Your task to perform on an android device: turn on the 12-hour format for clock Image 0: 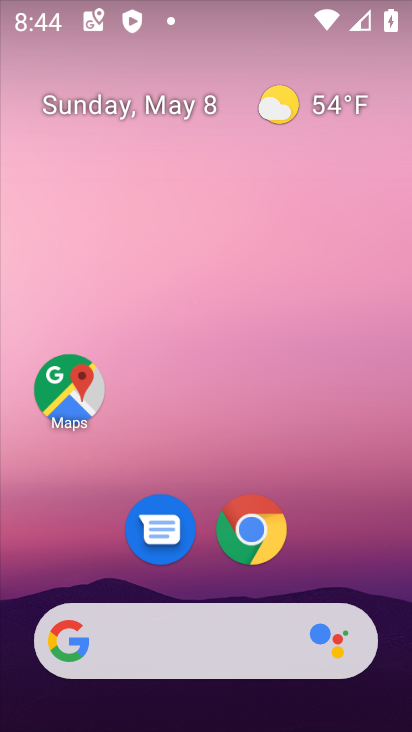
Step 0: drag from (392, 551) to (412, 39)
Your task to perform on an android device: turn on the 12-hour format for clock Image 1: 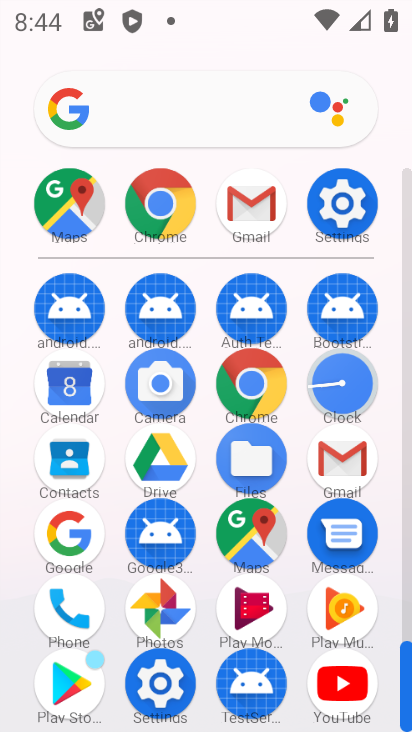
Step 1: drag from (393, 523) to (382, 227)
Your task to perform on an android device: turn on the 12-hour format for clock Image 2: 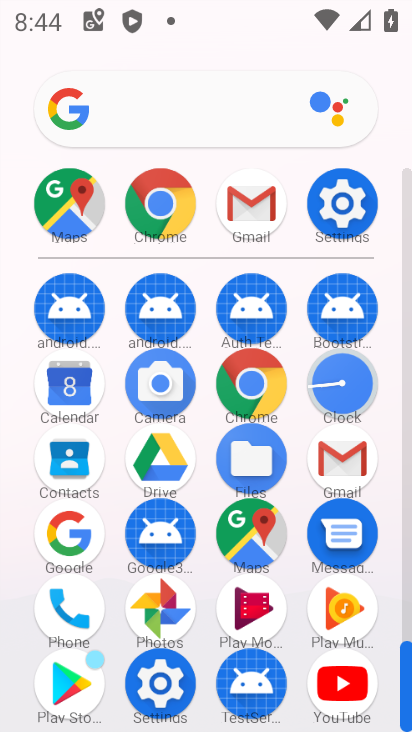
Step 2: click (344, 380)
Your task to perform on an android device: turn on the 12-hour format for clock Image 3: 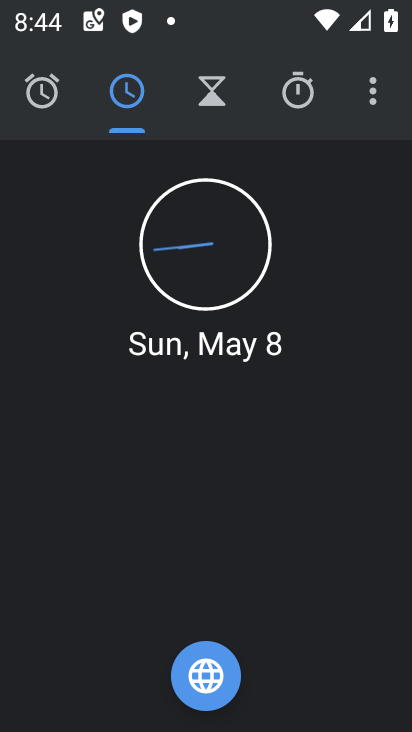
Step 3: click (367, 110)
Your task to perform on an android device: turn on the 12-hour format for clock Image 4: 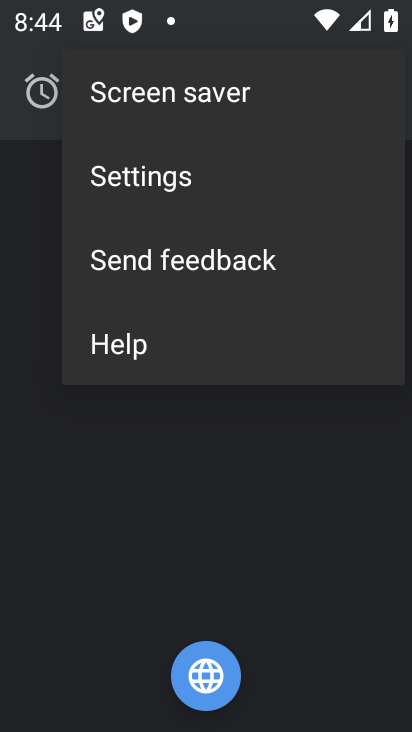
Step 4: click (210, 178)
Your task to perform on an android device: turn on the 12-hour format for clock Image 5: 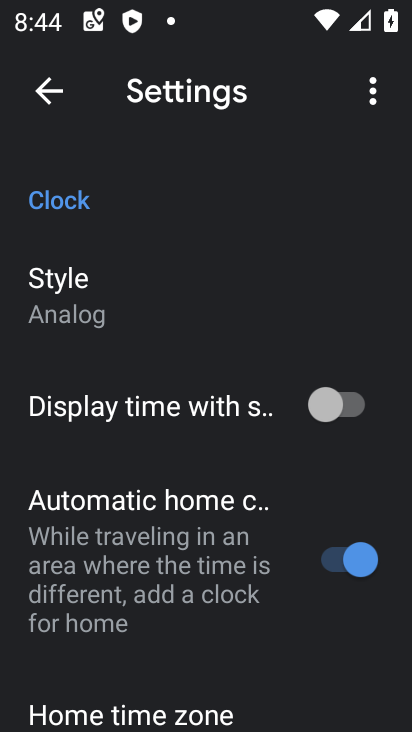
Step 5: drag from (186, 616) to (239, 278)
Your task to perform on an android device: turn on the 12-hour format for clock Image 6: 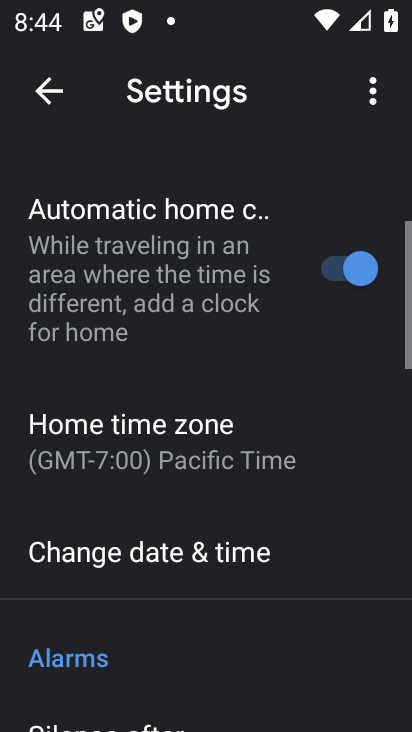
Step 6: click (194, 541)
Your task to perform on an android device: turn on the 12-hour format for clock Image 7: 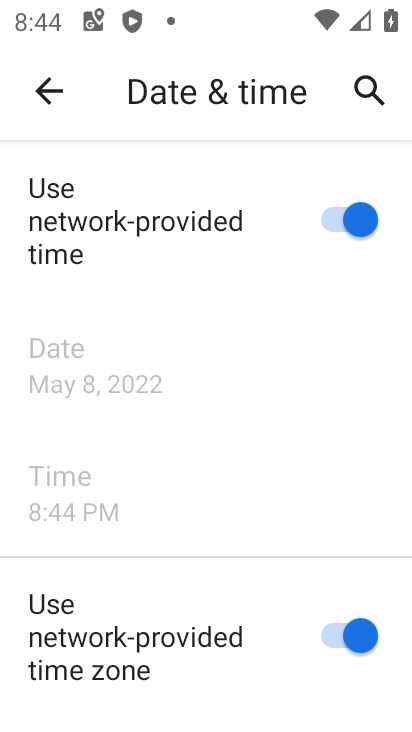
Step 7: task complete